Your task to perform on an android device: Open Youtube and go to "Your channel" Image 0: 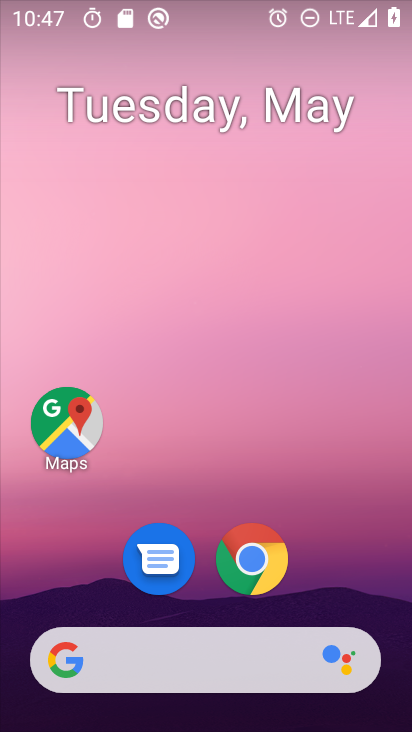
Step 0: drag from (397, 639) to (314, 104)
Your task to perform on an android device: Open Youtube and go to "Your channel" Image 1: 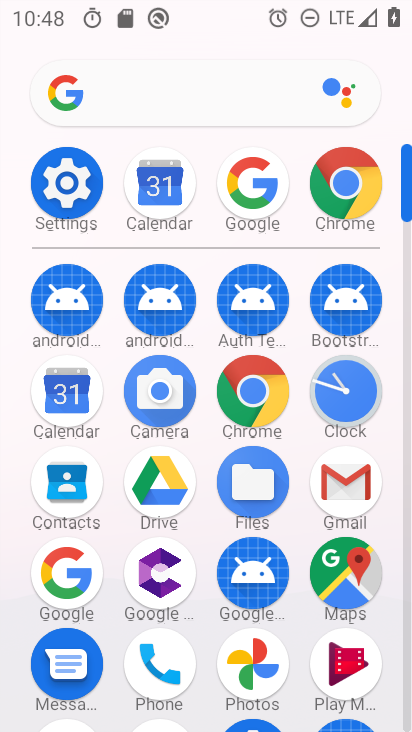
Step 1: drag from (288, 675) to (280, 120)
Your task to perform on an android device: Open Youtube and go to "Your channel" Image 2: 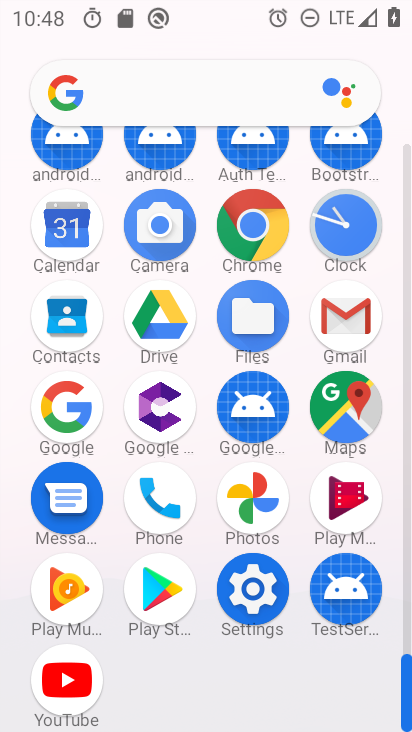
Step 2: click (46, 667)
Your task to perform on an android device: Open Youtube and go to "Your channel" Image 3: 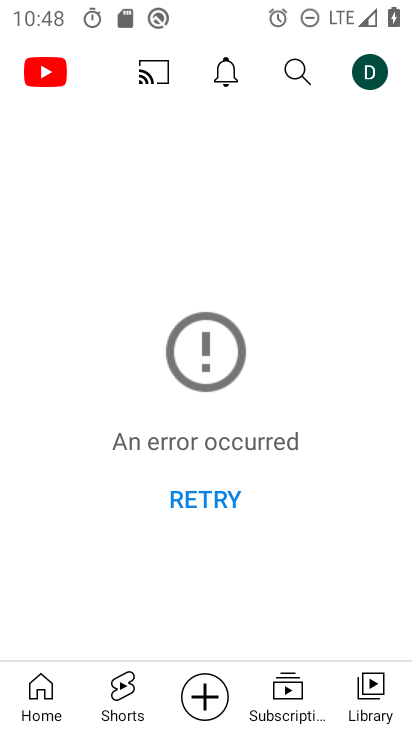
Step 3: click (210, 500)
Your task to perform on an android device: Open Youtube and go to "Your channel" Image 4: 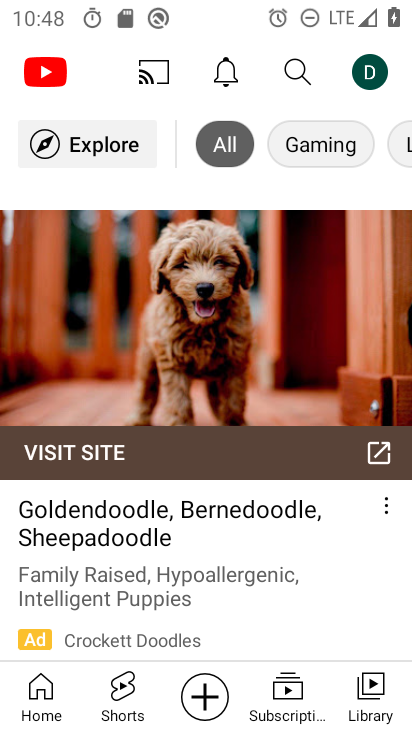
Step 4: click (375, 80)
Your task to perform on an android device: Open Youtube and go to "Your channel" Image 5: 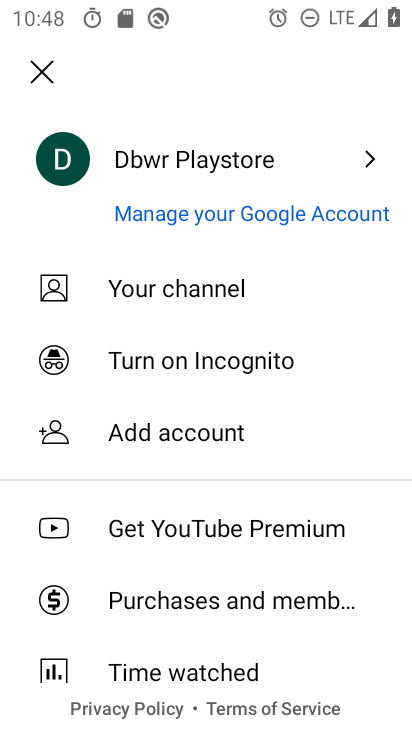
Step 5: click (185, 290)
Your task to perform on an android device: Open Youtube and go to "Your channel" Image 6: 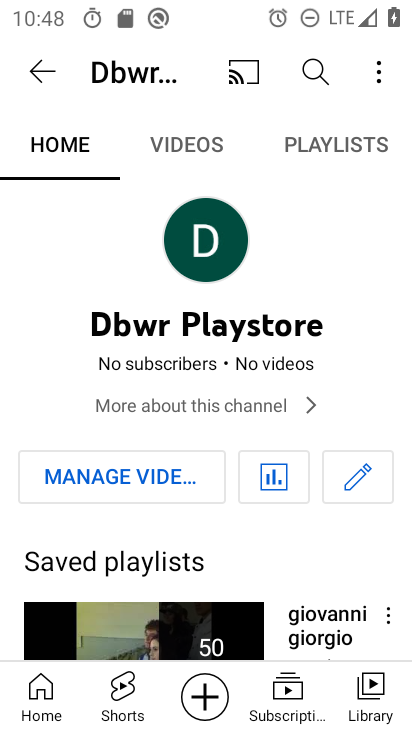
Step 6: task complete